Your task to perform on an android device: open sync settings in chrome Image 0: 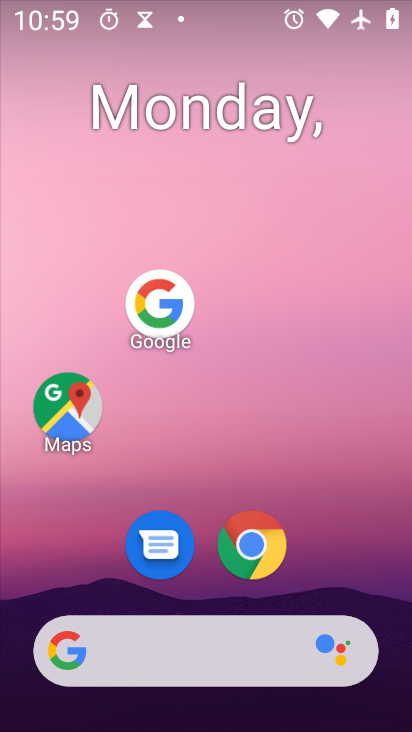
Step 0: press home button
Your task to perform on an android device: open sync settings in chrome Image 1: 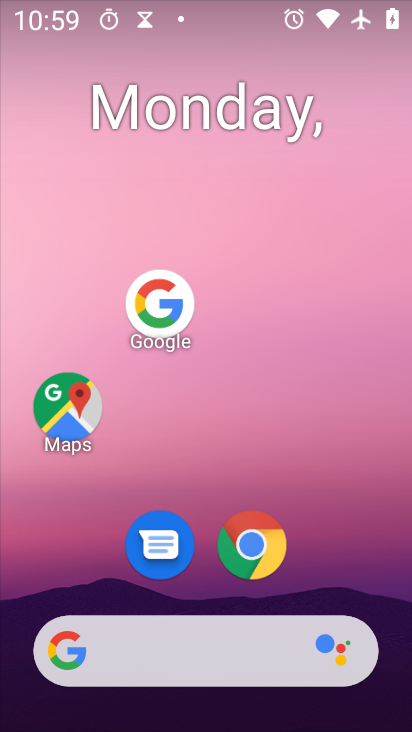
Step 1: click (260, 556)
Your task to perform on an android device: open sync settings in chrome Image 2: 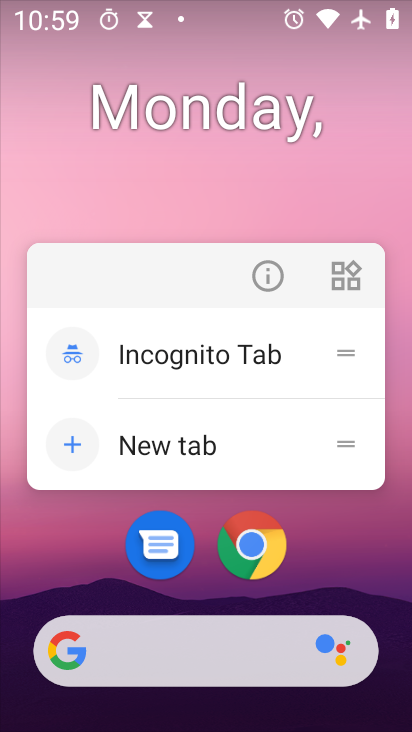
Step 2: click (243, 548)
Your task to perform on an android device: open sync settings in chrome Image 3: 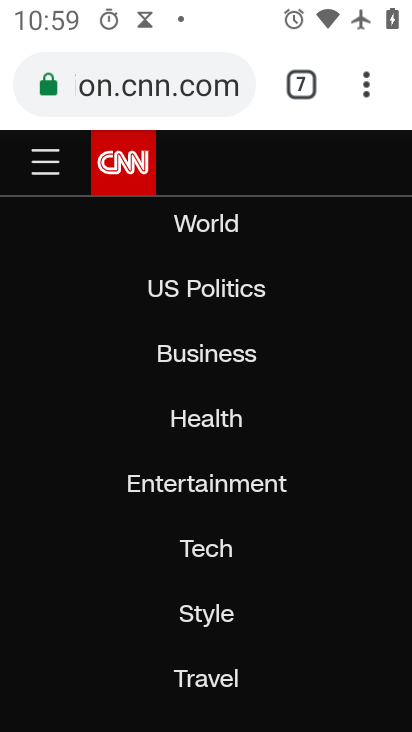
Step 3: drag from (369, 86) to (226, 576)
Your task to perform on an android device: open sync settings in chrome Image 4: 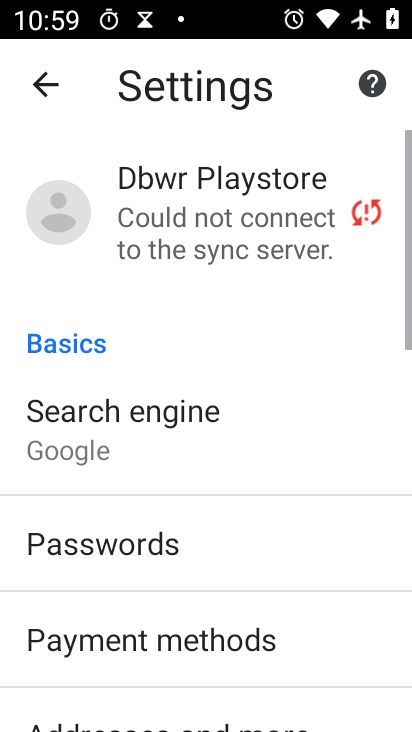
Step 4: click (243, 199)
Your task to perform on an android device: open sync settings in chrome Image 5: 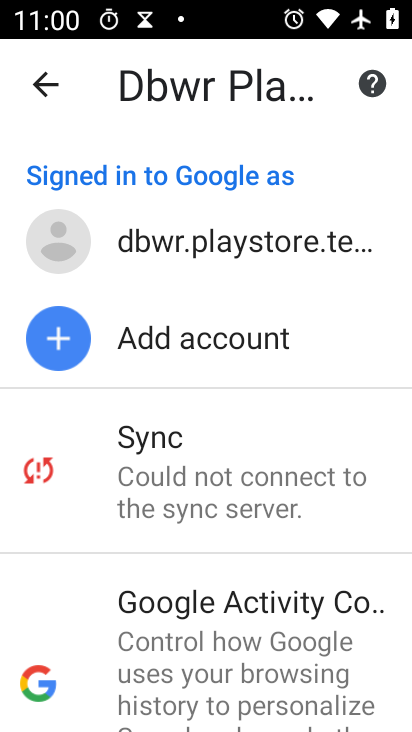
Step 5: click (203, 493)
Your task to perform on an android device: open sync settings in chrome Image 6: 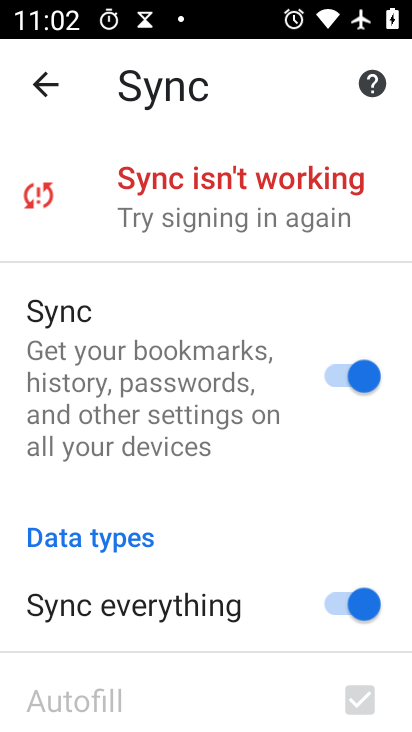
Step 6: task complete